Your task to perform on an android device: Open Amazon Image 0: 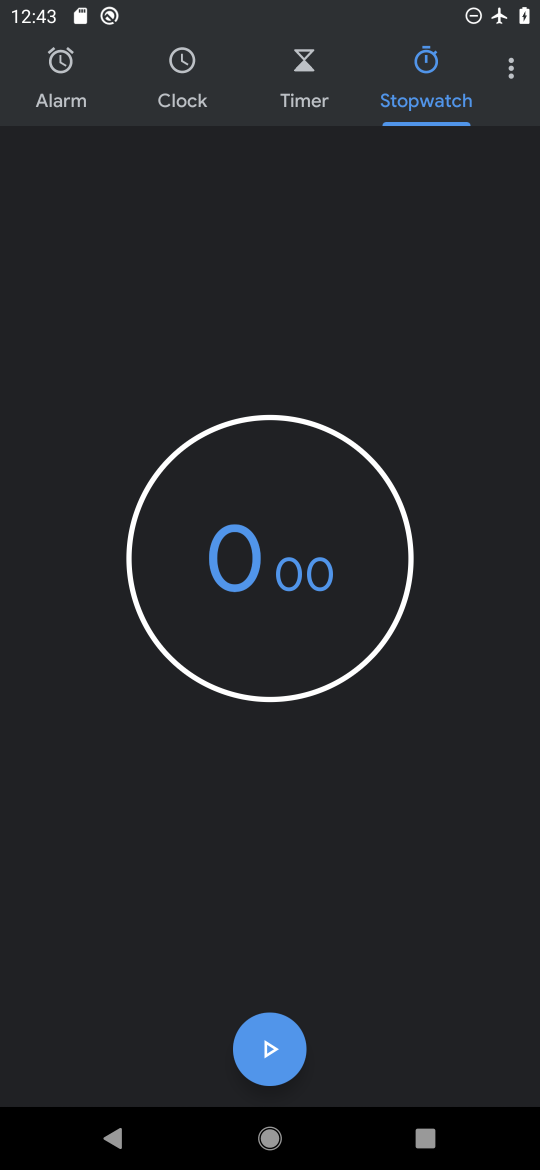
Step 0: press home button
Your task to perform on an android device: Open Amazon Image 1: 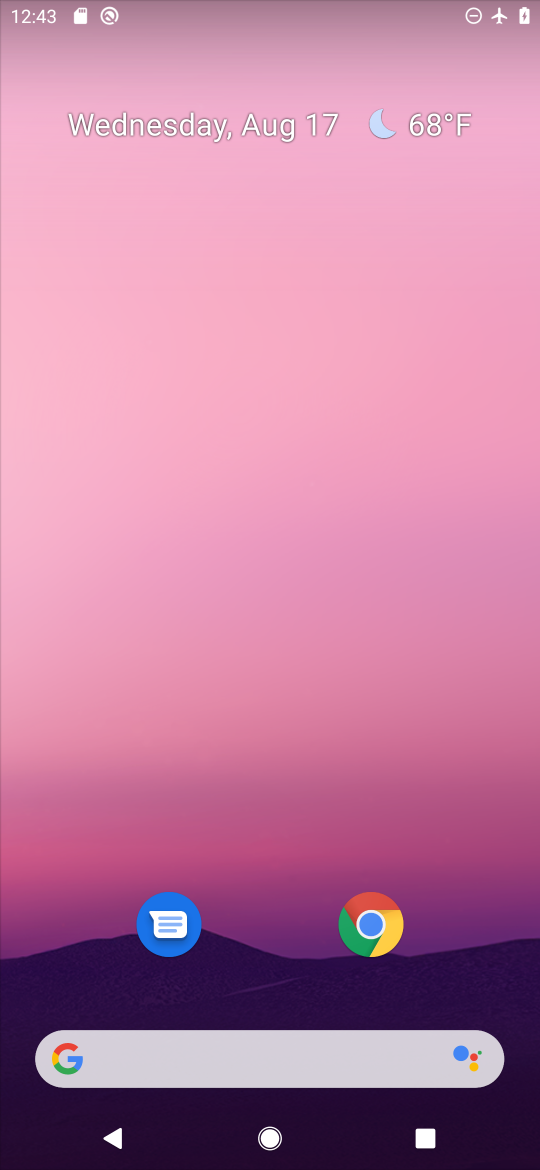
Step 1: click (363, 921)
Your task to perform on an android device: Open Amazon Image 2: 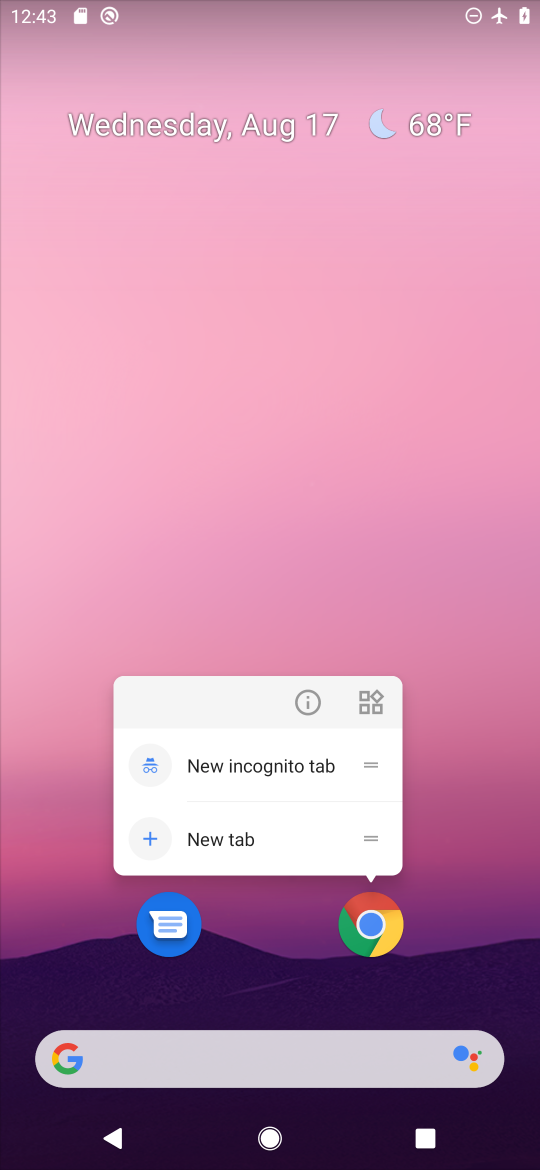
Step 2: click (373, 924)
Your task to perform on an android device: Open Amazon Image 3: 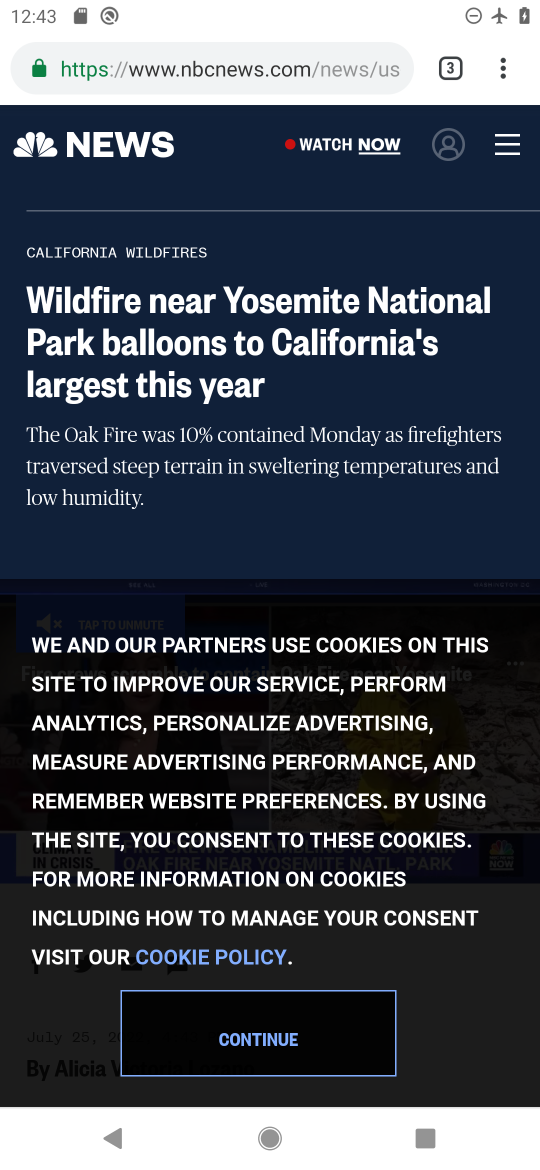
Step 3: click (510, 66)
Your task to perform on an android device: Open Amazon Image 4: 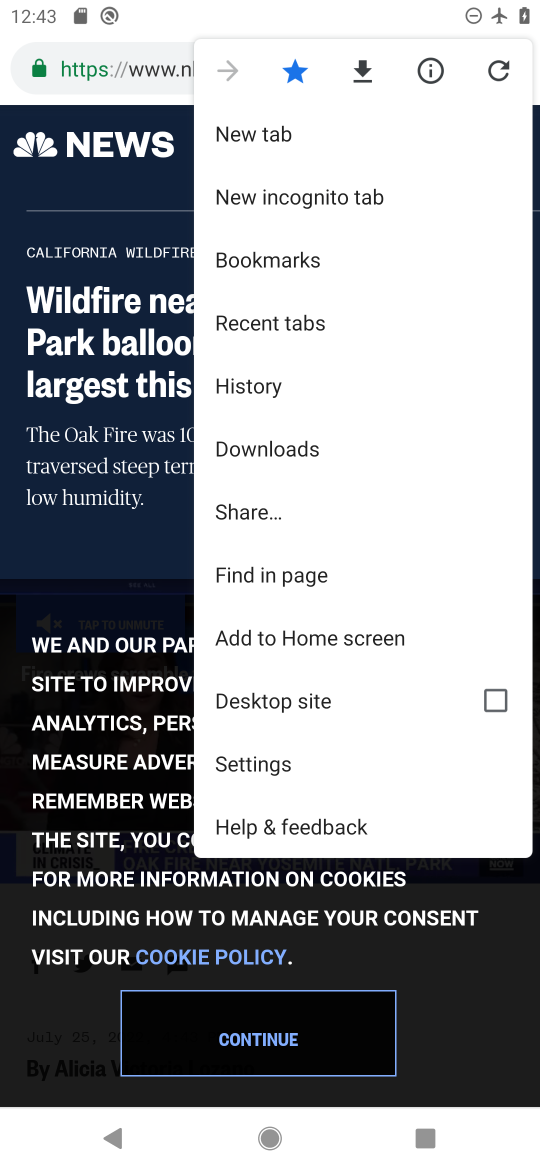
Step 4: click (295, 133)
Your task to perform on an android device: Open Amazon Image 5: 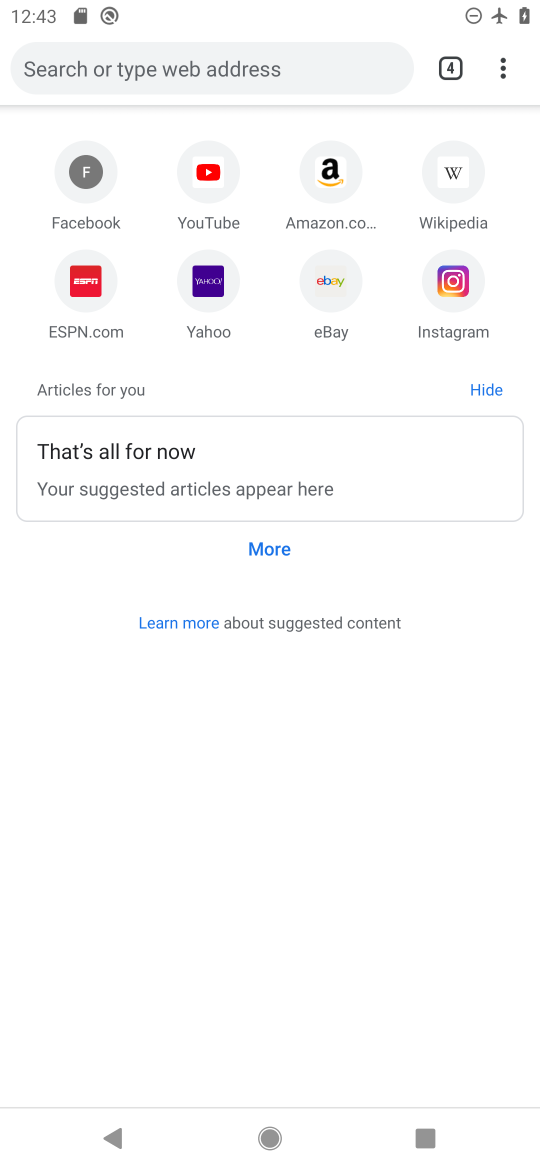
Step 5: click (323, 162)
Your task to perform on an android device: Open Amazon Image 6: 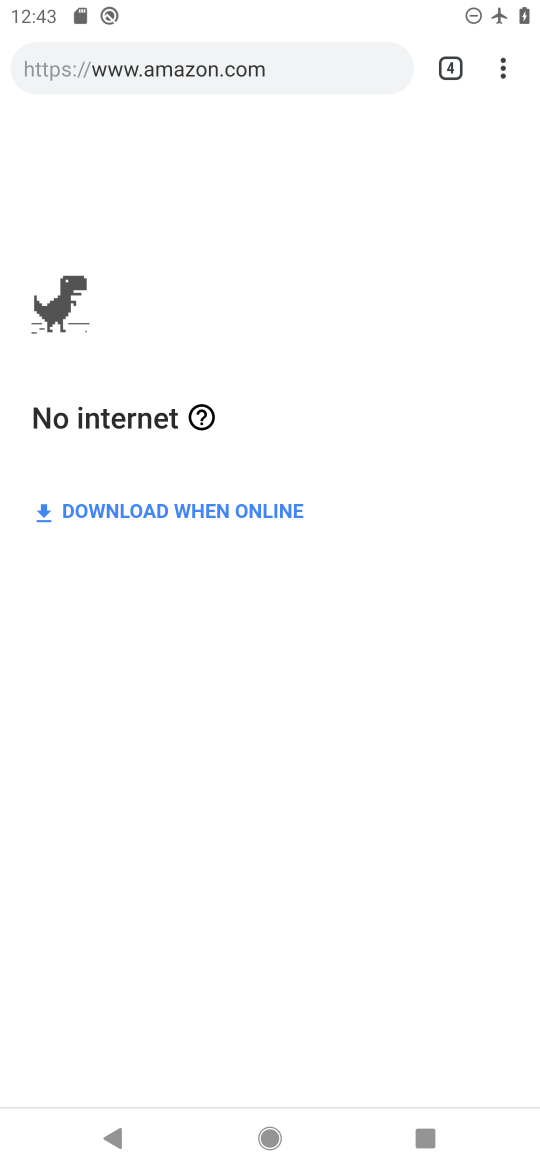
Step 6: drag from (381, 26) to (381, 727)
Your task to perform on an android device: Open Amazon Image 7: 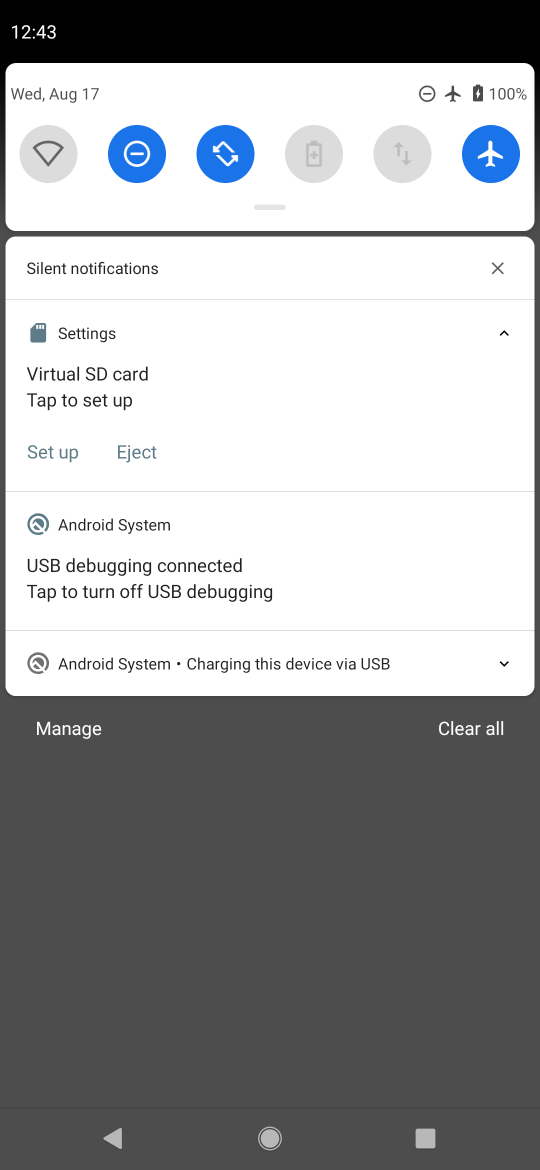
Step 7: click (474, 150)
Your task to perform on an android device: Open Amazon Image 8: 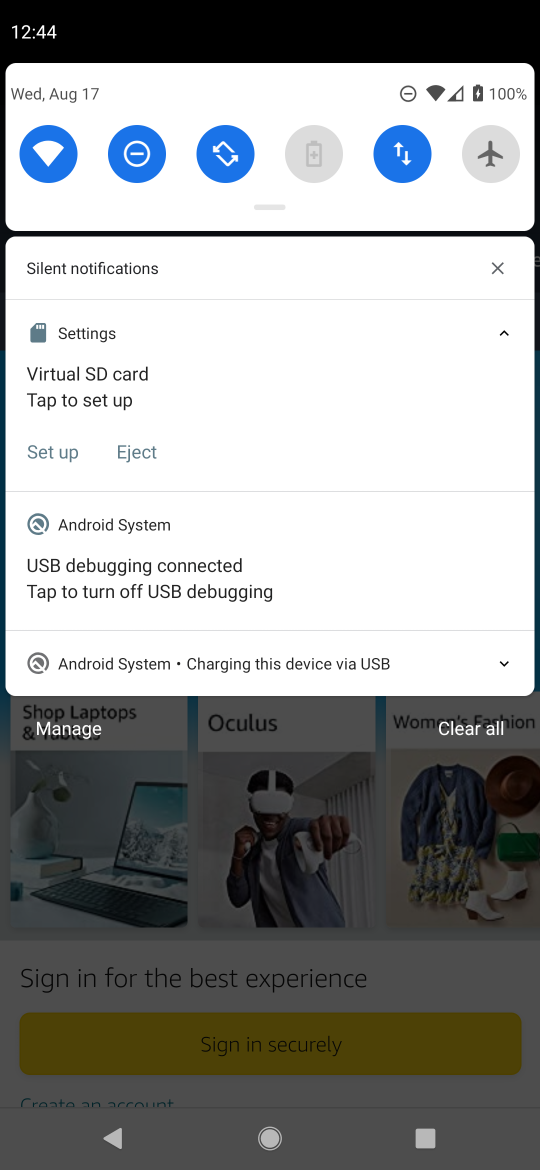
Step 8: task complete